Your task to perform on an android device: turn on improve location accuracy Image 0: 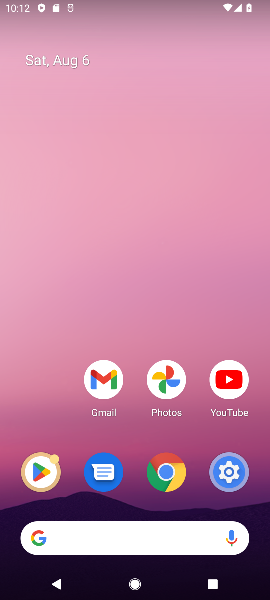
Step 0: drag from (223, 486) to (56, 43)
Your task to perform on an android device: turn on improve location accuracy Image 1: 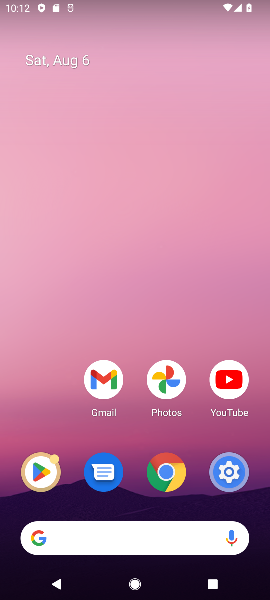
Step 1: drag from (57, 3) to (110, 58)
Your task to perform on an android device: turn on improve location accuracy Image 2: 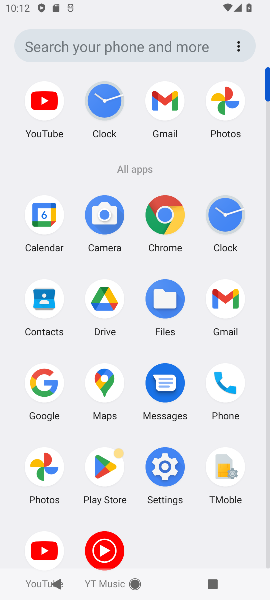
Step 2: click (163, 470)
Your task to perform on an android device: turn on improve location accuracy Image 3: 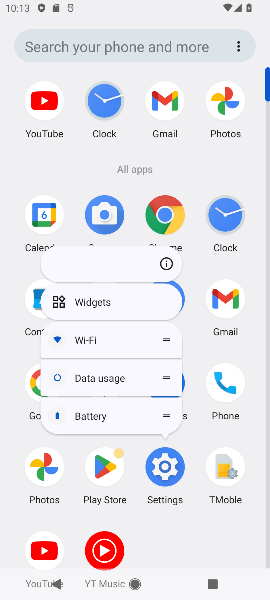
Step 3: click (169, 457)
Your task to perform on an android device: turn on improve location accuracy Image 4: 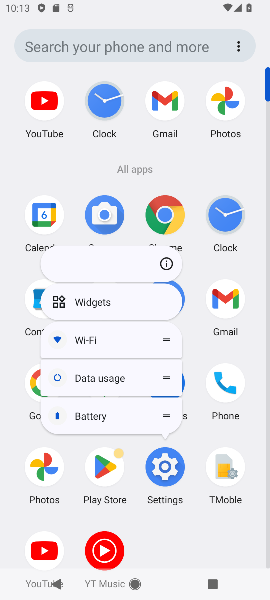
Step 4: click (162, 460)
Your task to perform on an android device: turn on improve location accuracy Image 5: 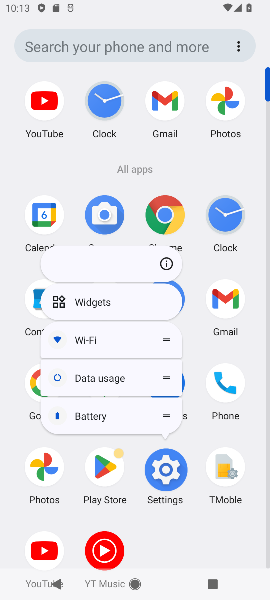
Step 5: click (163, 463)
Your task to perform on an android device: turn on improve location accuracy Image 6: 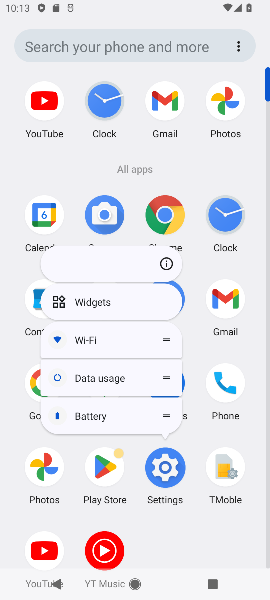
Step 6: click (163, 463)
Your task to perform on an android device: turn on improve location accuracy Image 7: 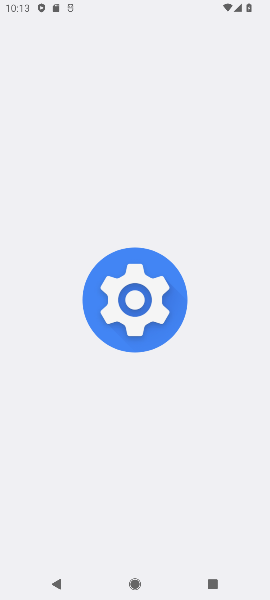
Step 7: click (161, 463)
Your task to perform on an android device: turn on improve location accuracy Image 8: 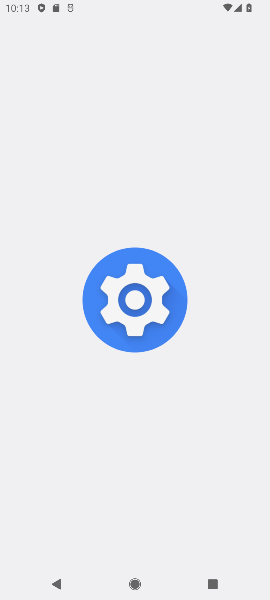
Step 8: click (165, 464)
Your task to perform on an android device: turn on improve location accuracy Image 9: 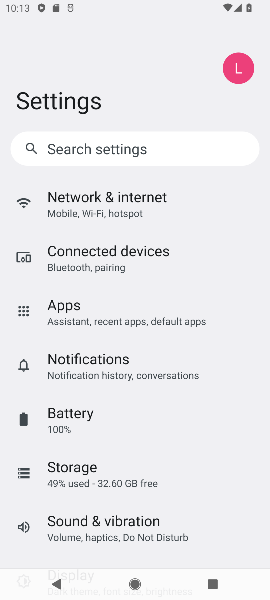
Step 9: drag from (131, 502) to (64, 222)
Your task to perform on an android device: turn on improve location accuracy Image 10: 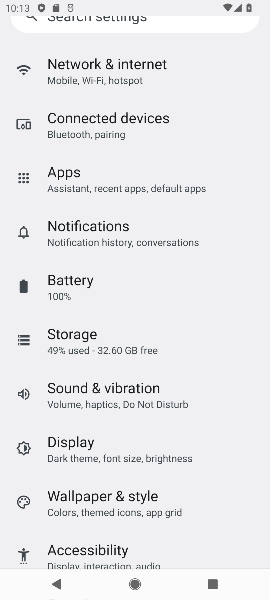
Step 10: drag from (107, 430) to (81, 191)
Your task to perform on an android device: turn on improve location accuracy Image 11: 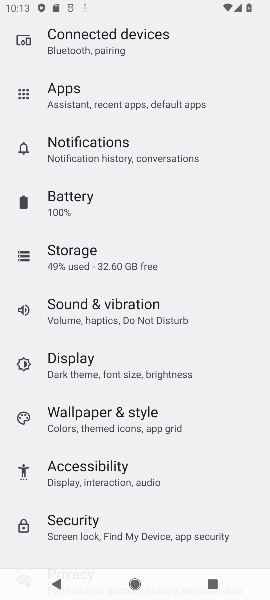
Step 11: drag from (111, 383) to (113, 253)
Your task to perform on an android device: turn on improve location accuracy Image 12: 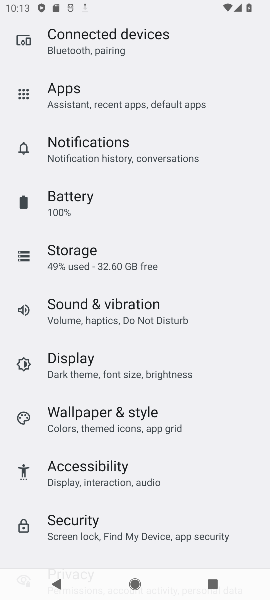
Step 12: drag from (108, 486) to (98, 201)
Your task to perform on an android device: turn on improve location accuracy Image 13: 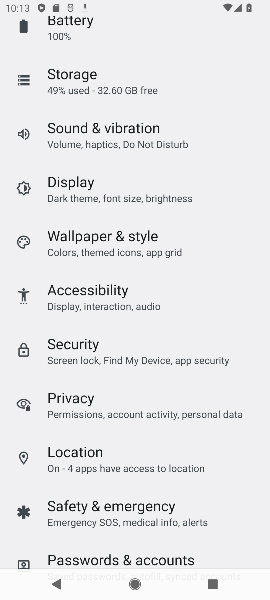
Step 13: click (94, 452)
Your task to perform on an android device: turn on improve location accuracy Image 14: 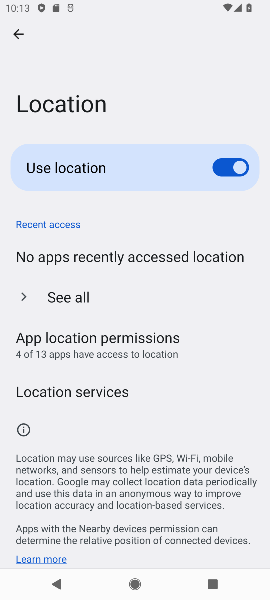
Step 14: click (68, 388)
Your task to perform on an android device: turn on improve location accuracy Image 15: 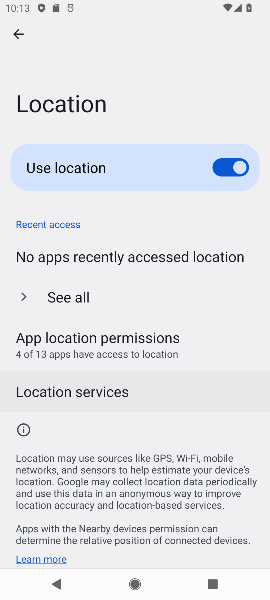
Step 15: click (71, 394)
Your task to perform on an android device: turn on improve location accuracy Image 16: 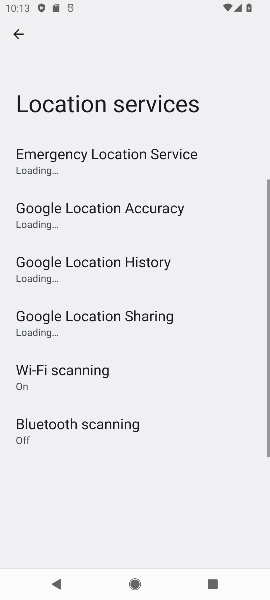
Step 16: drag from (78, 394) to (69, 180)
Your task to perform on an android device: turn on improve location accuracy Image 17: 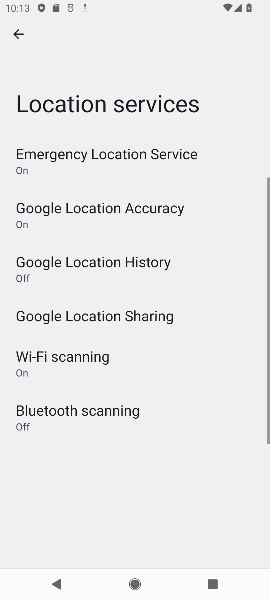
Step 17: click (101, 198)
Your task to perform on an android device: turn on improve location accuracy Image 18: 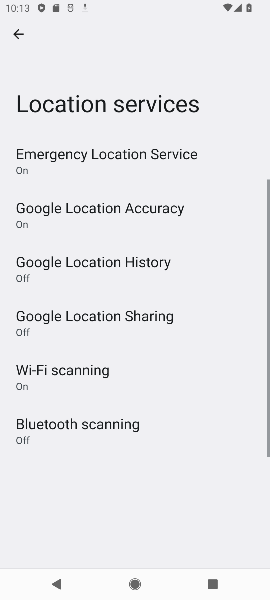
Step 18: click (102, 214)
Your task to perform on an android device: turn on improve location accuracy Image 19: 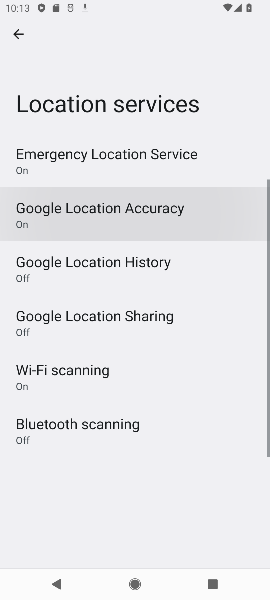
Step 19: click (103, 215)
Your task to perform on an android device: turn on improve location accuracy Image 20: 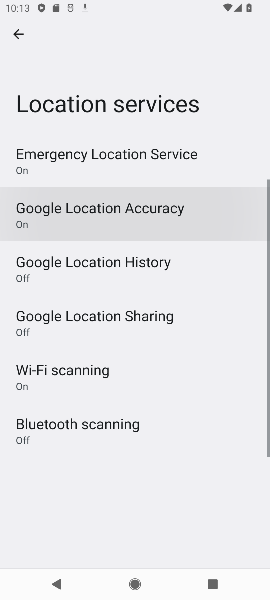
Step 20: click (105, 215)
Your task to perform on an android device: turn on improve location accuracy Image 21: 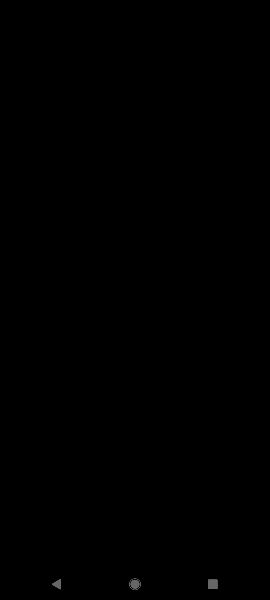
Step 21: click (108, 213)
Your task to perform on an android device: turn on improve location accuracy Image 22: 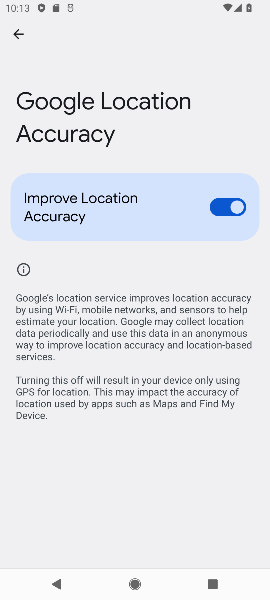
Step 22: task complete